Your task to perform on an android device: Clear all items from cart on bestbuy.com. Add "logitech g502" to the cart on bestbuy.com Image 0: 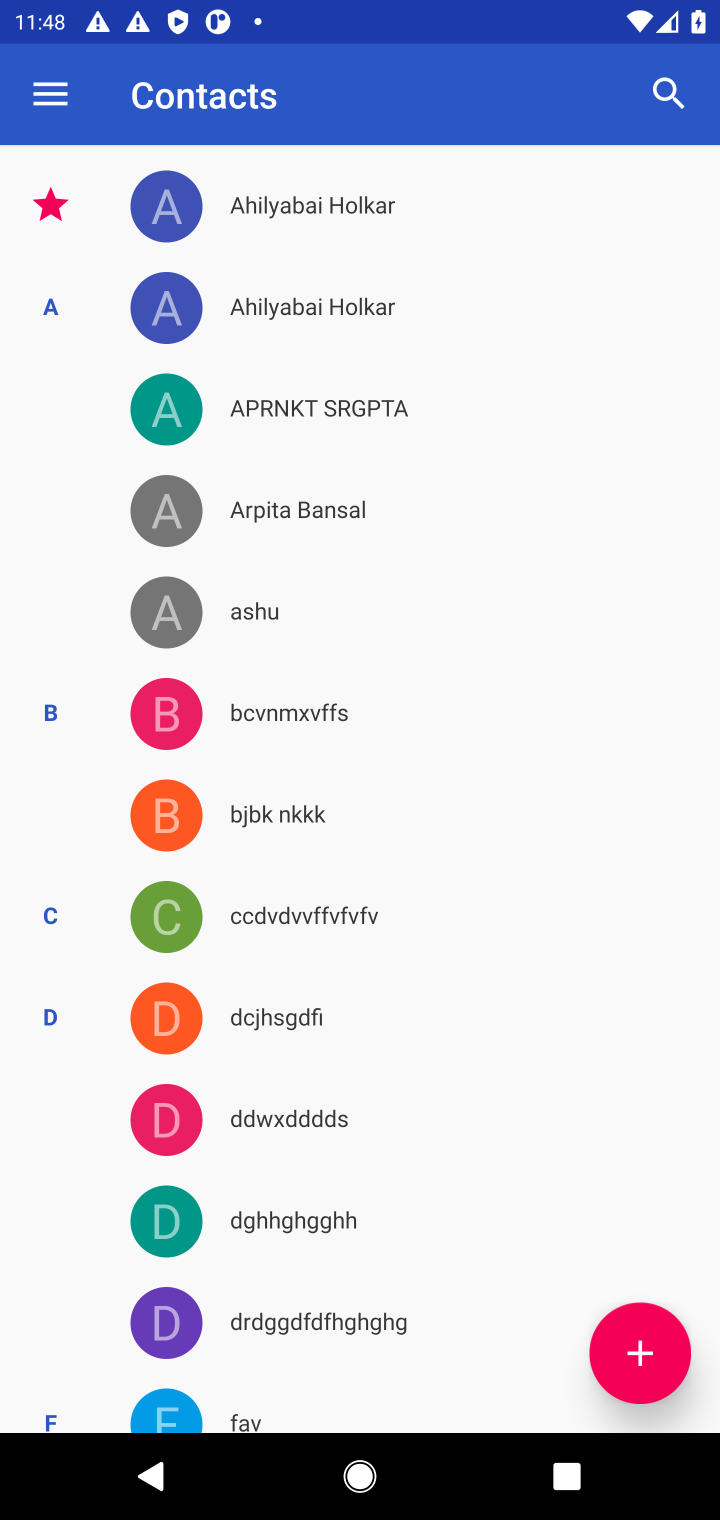
Step 0: press home button
Your task to perform on an android device: Clear all items from cart on bestbuy.com. Add "logitech g502" to the cart on bestbuy.com Image 1: 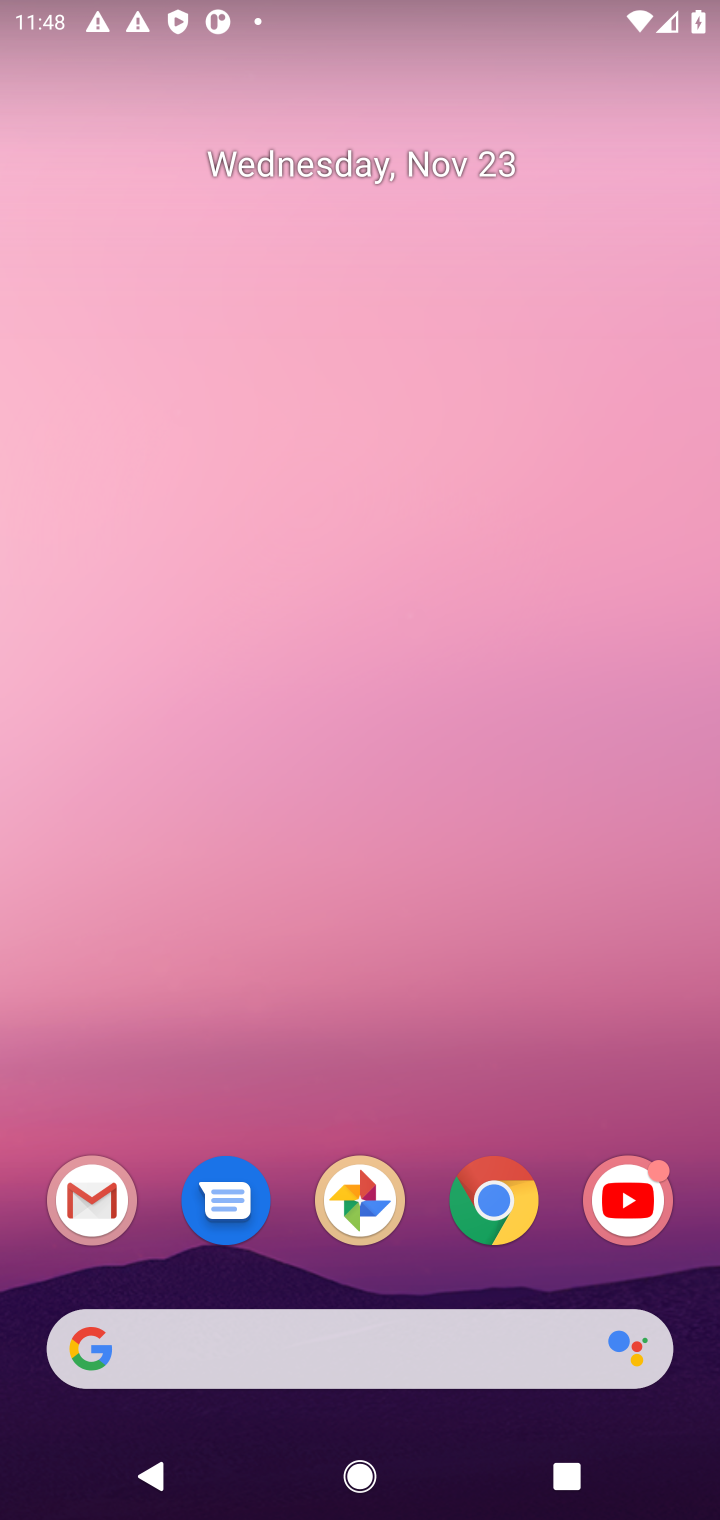
Step 1: type "bestbuy.com"
Your task to perform on an android device: Clear all items from cart on bestbuy.com. Add "logitech g502" to the cart on bestbuy.com Image 2: 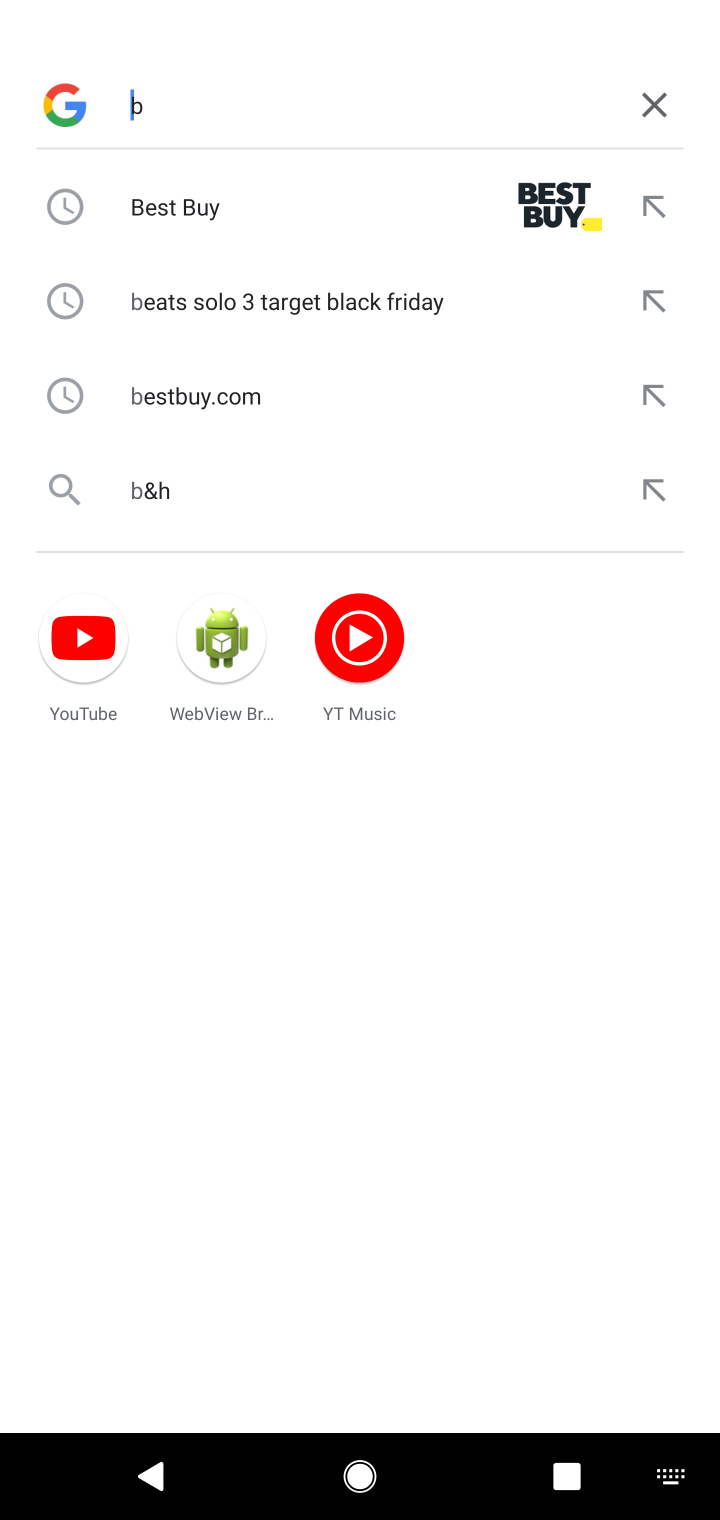
Step 2: click (206, 223)
Your task to perform on an android device: Clear all items from cart on bestbuy.com. Add "logitech g502" to the cart on bestbuy.com Image 3: 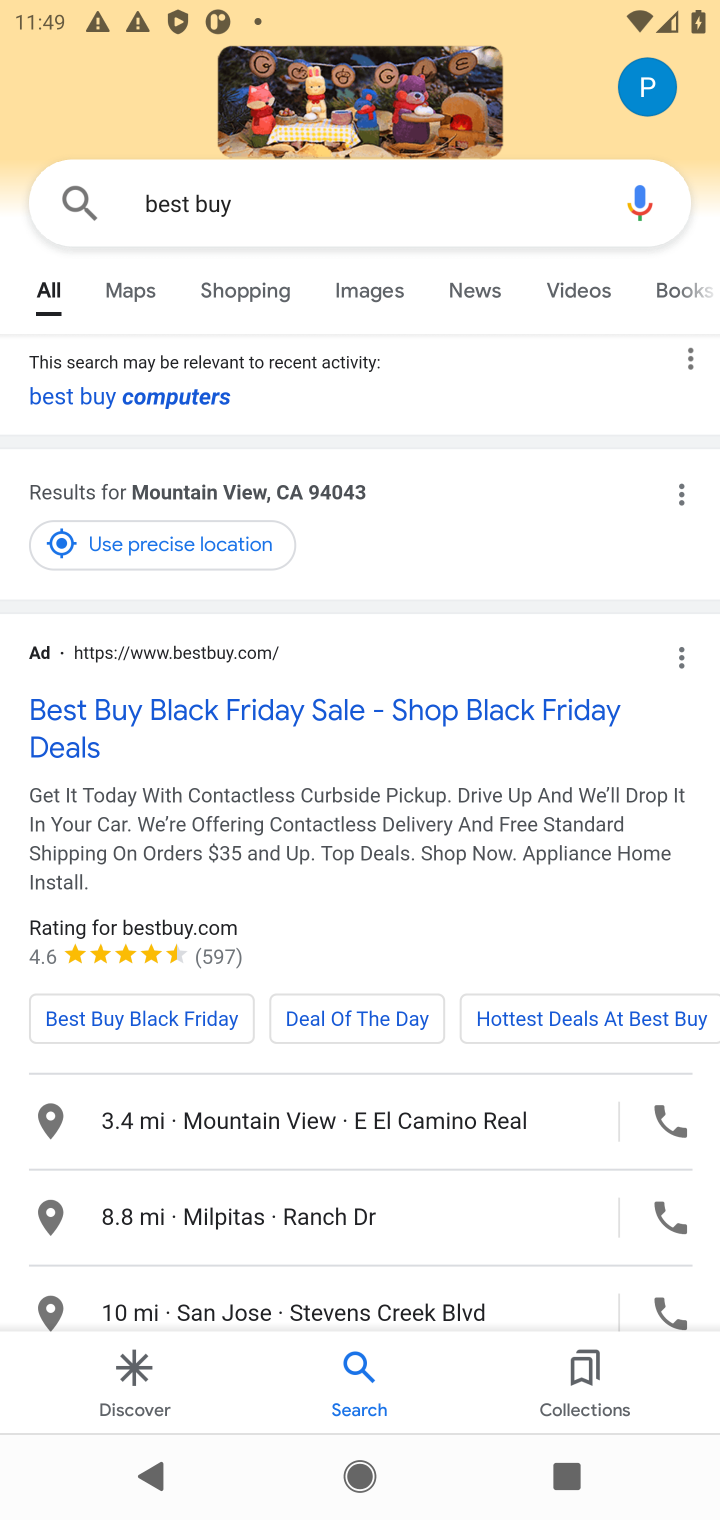
Step 3: click (123, 695)
Your task to perform on an android device: Clear all items from cart on bestbuy.com. Add "logitech g502" to the cart on bestbuy.com Image 4: 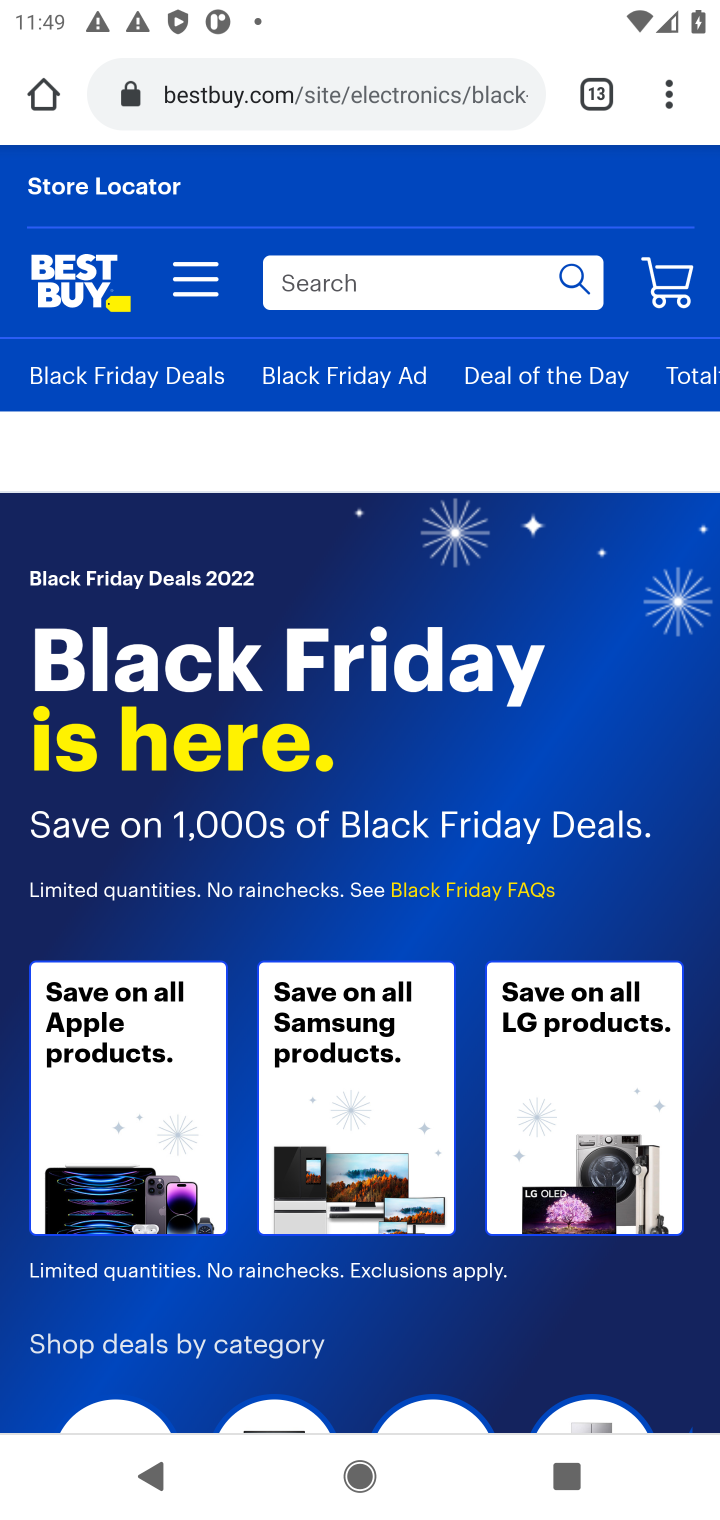
Step 4: click (337, 281)
Your task to perform on an android device: Clear all items from cart on bestbuy.com. Add "logitech g502" to the cart on bestbuy.com Image 5: 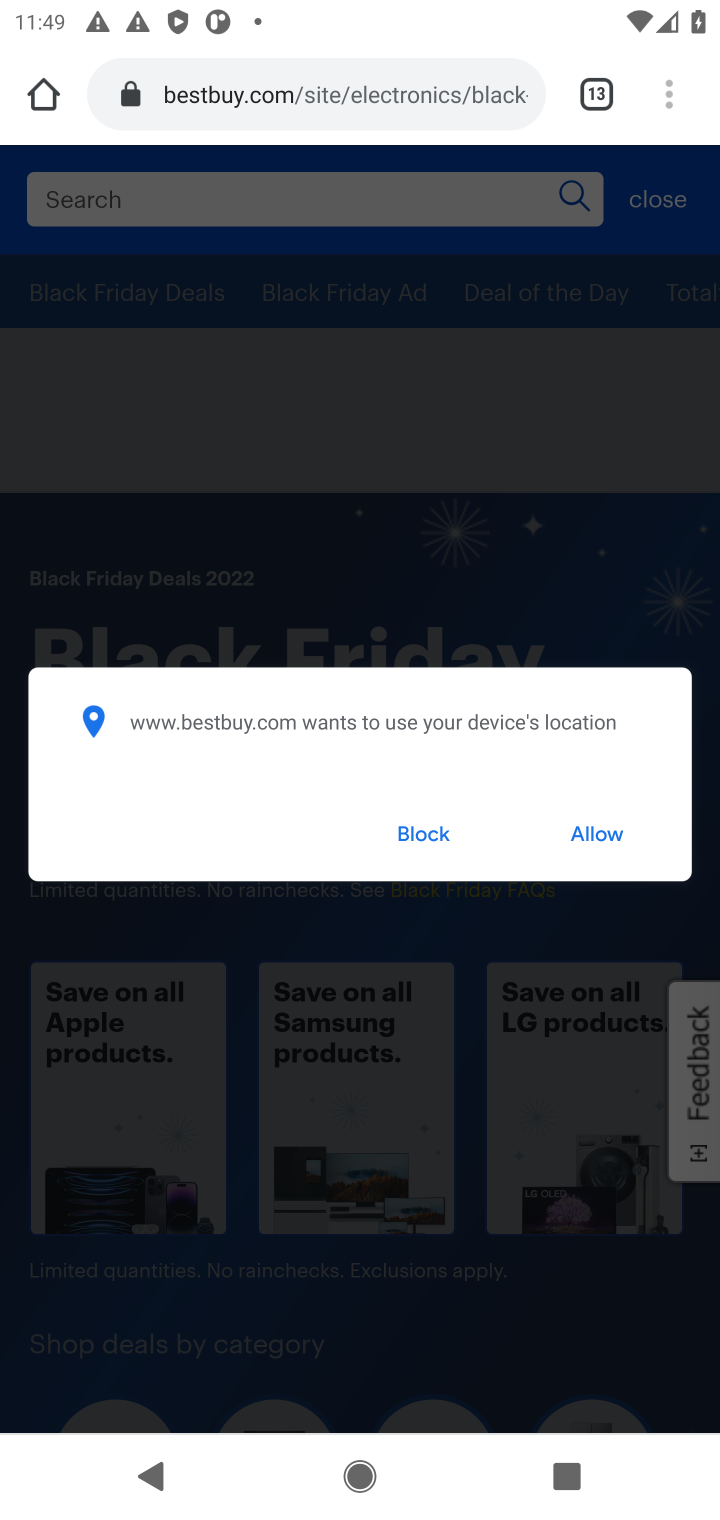
Step 5: type "logitech"
Your task to perform on an android device: Clear all items from cart on bestbuy.com. Add "logitech g502" to the cart on bestbuy.com Image 6: 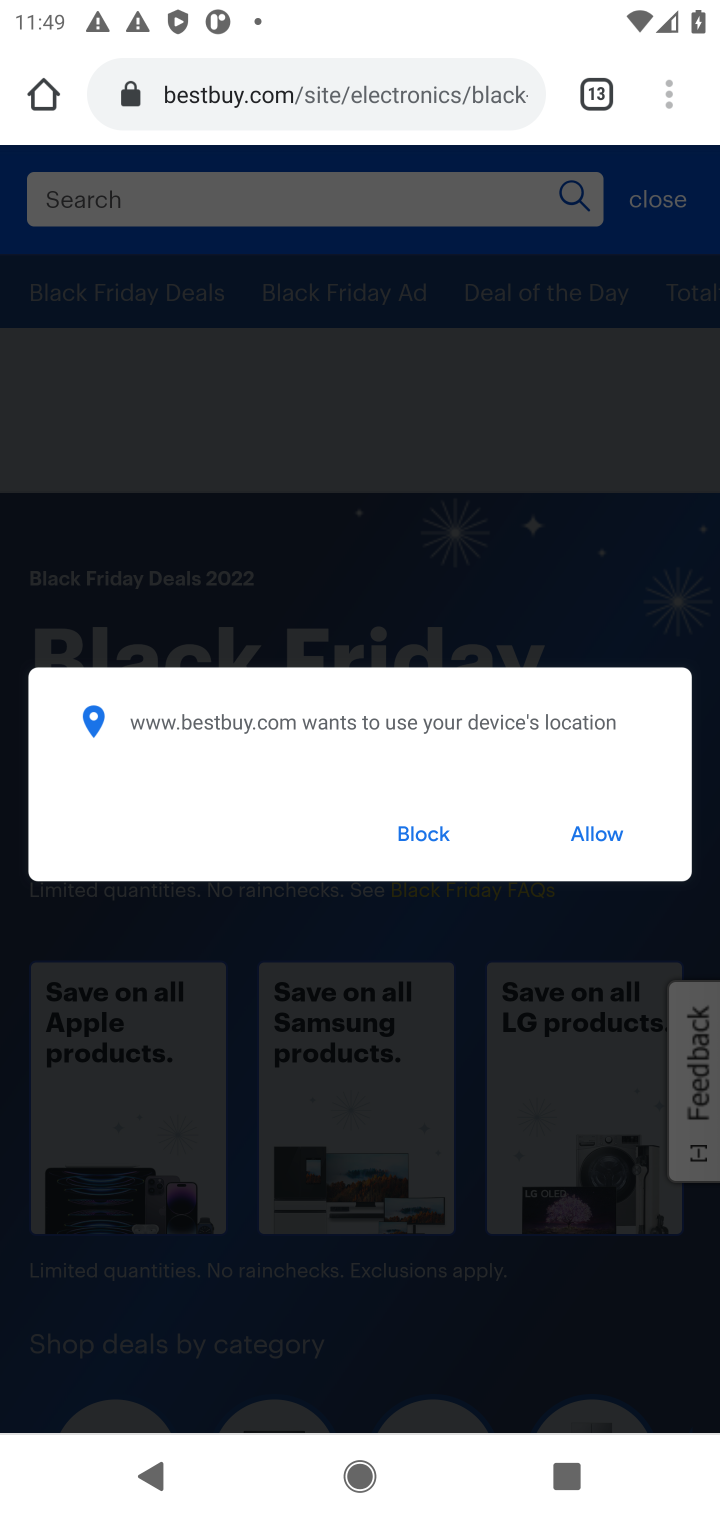
Step 6: click (597, 861)
Your task to perform on an android device: Clear all items from cart on bestbuy.com. Add "logitech g502" to the cart on bestbuy.com Image 7: 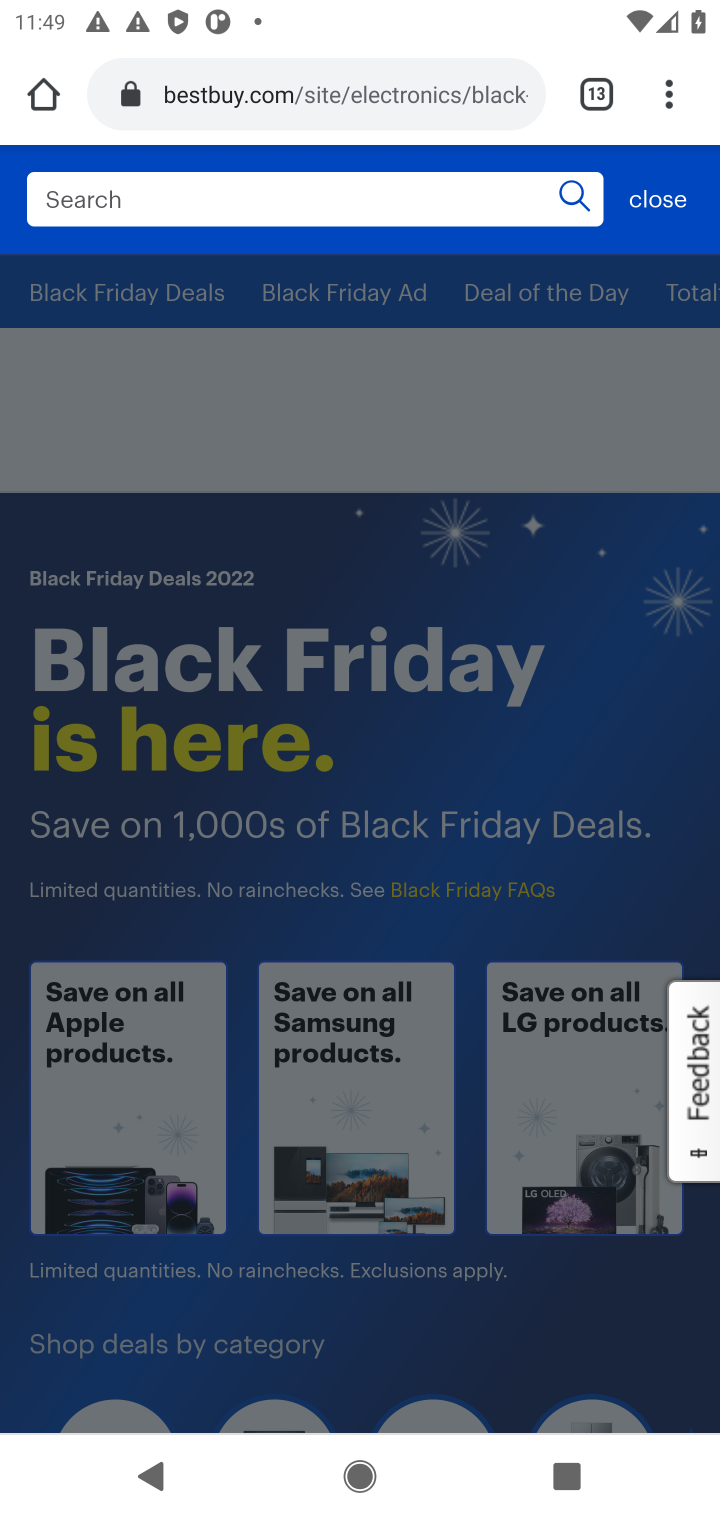
Step 7: task complete